Your task to perform on an android device: Show me popular videos on Youtube Image 0: 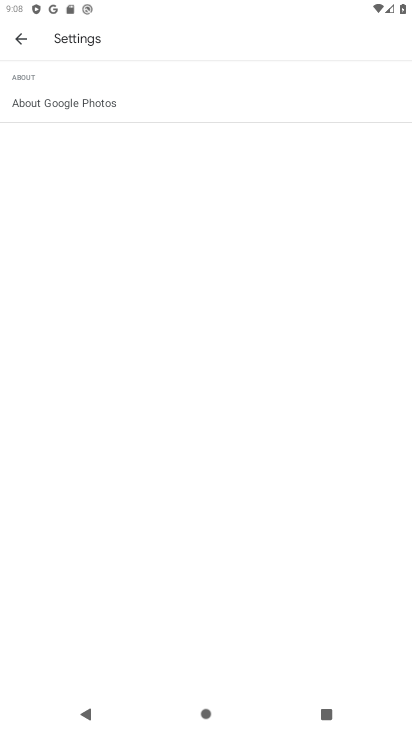
Step 0: press home button
Your task to perform on an android device: Show me popular videos on Youtube Image 1: 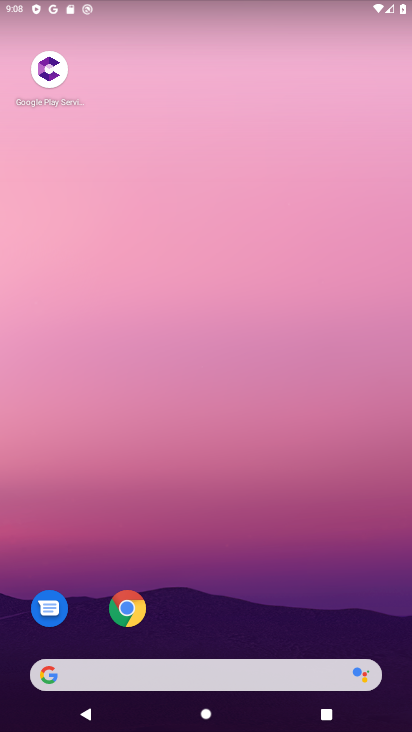
Step 1: drag from (295, 609) to (181, 4)
Your task to perform on an android device: Show me popular videos on Youtube Image 2: 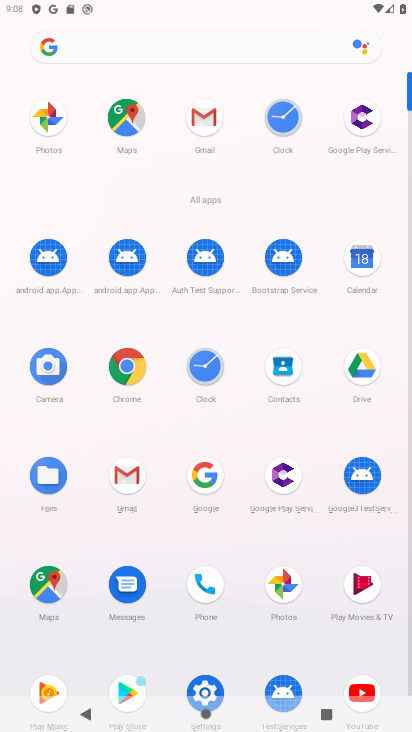
Step 2: click (364, 683)
Your task to perform on an android device: Show me popular videos on Youtube Image 3: 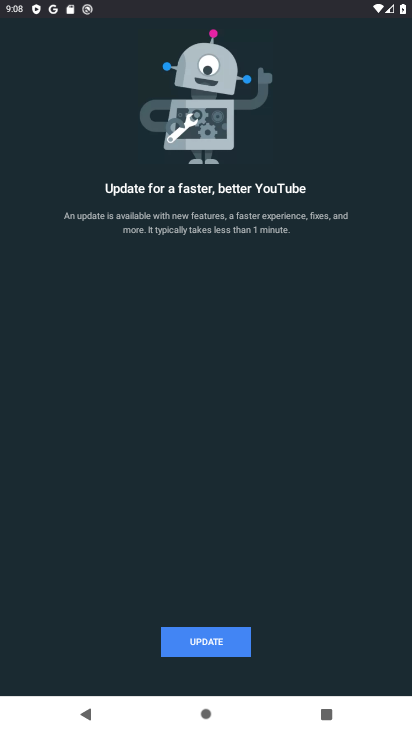
Step 3: click (190, 645)
Your task to perform on an android device: Show me popular videos on Youtube Image 4: 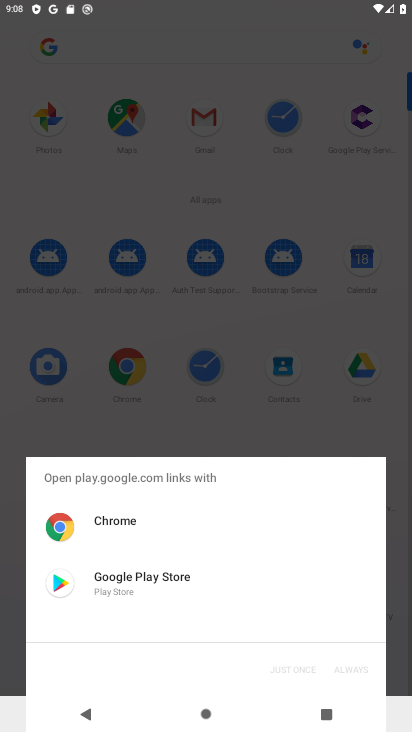
Step 4: click (238, 599)
Your task to perform on an android device: Show me popular videos on Youtube Image 5: 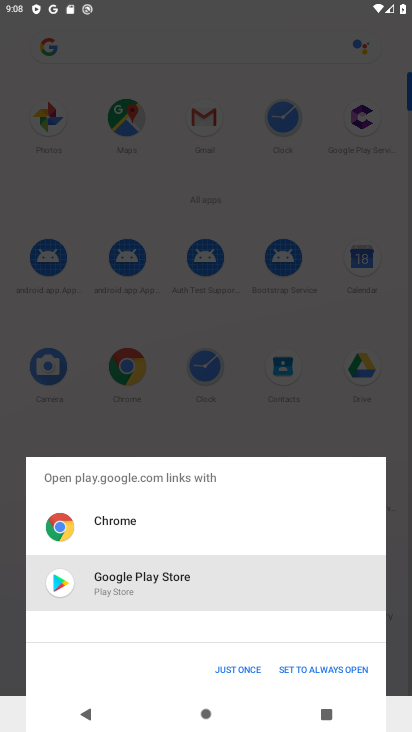
Step 5: click (240, 670)
Your task to perform on an android device: Show me popular videos on Youtube Image 6: 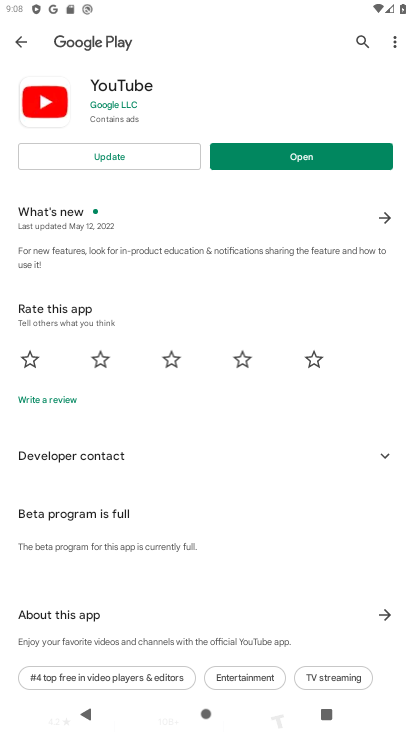
Step 6: click (150, 151)
Your task to perform on an android device: Show me popular videos on Youtube Image 7: 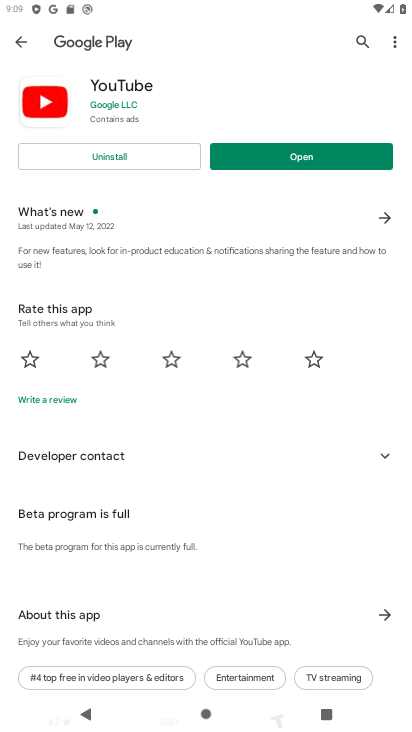
Step 7: click (307, 158)
Your task to perform on an android device: Show me popular videos on Youtube Image 8: 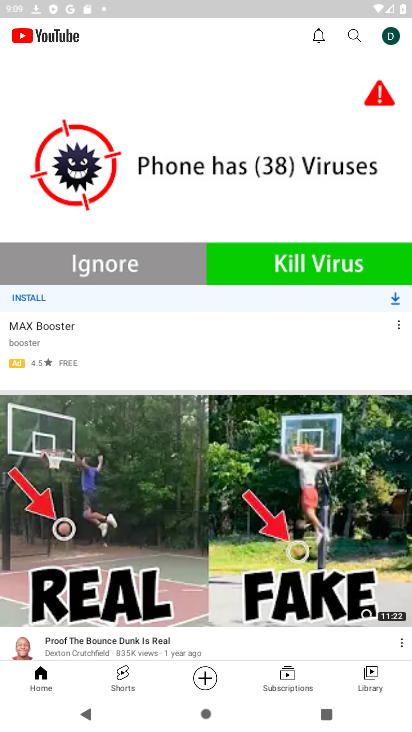
Step 8: task complete